Your task to perform on an android device: Open the map Image 0: 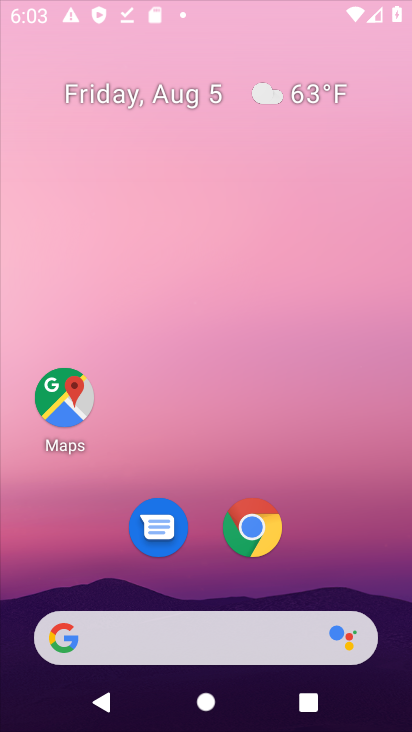
Step 0: click (247, 34)
Your task to perform on an android device: Open the map Image 1: 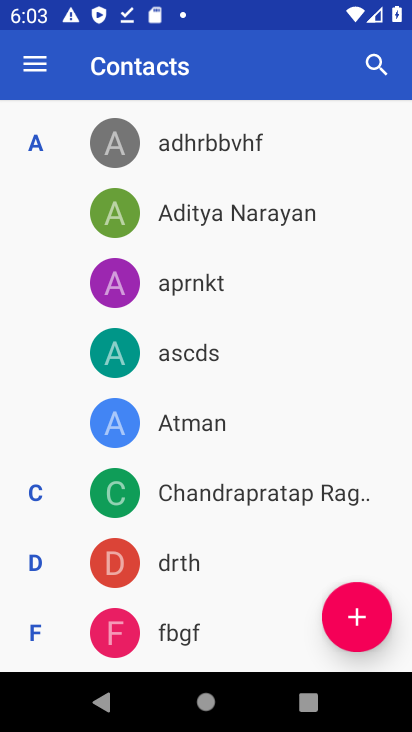
Step 1: drag from (198, 581) to (299, 155)
Your task to perform on an android device: Open the map Image 2: 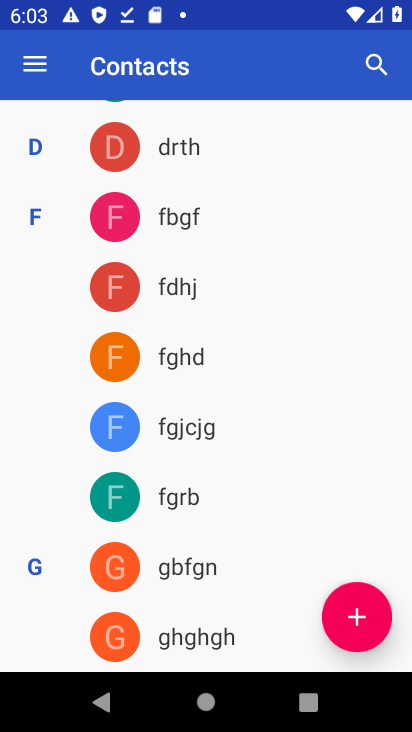
Step 2: press home button
Your task to perform on an android device: Open the map Image 3: 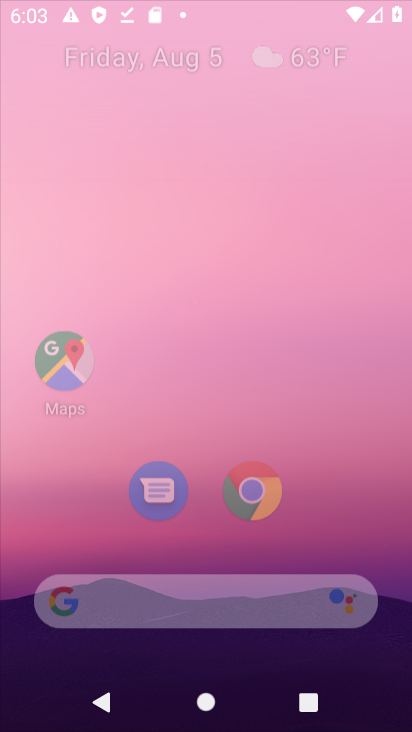
Step 3: drag from (203, 612) to (336, 119)
Your task to perform on an android device: Open the map Image 4: 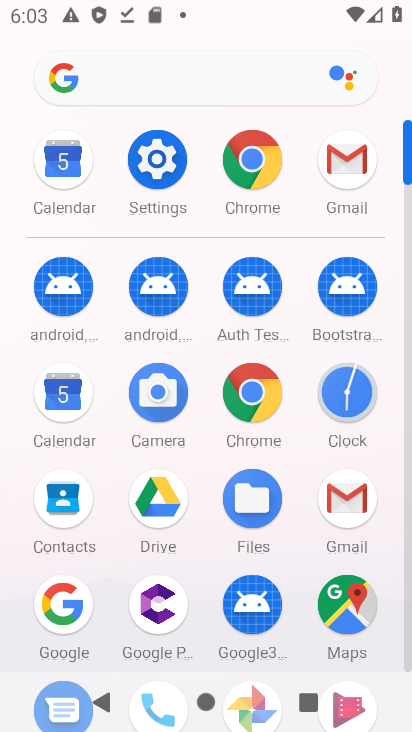
Step 4: click (340, 591)
Your task to perform on an android device: Open the map Image 5: 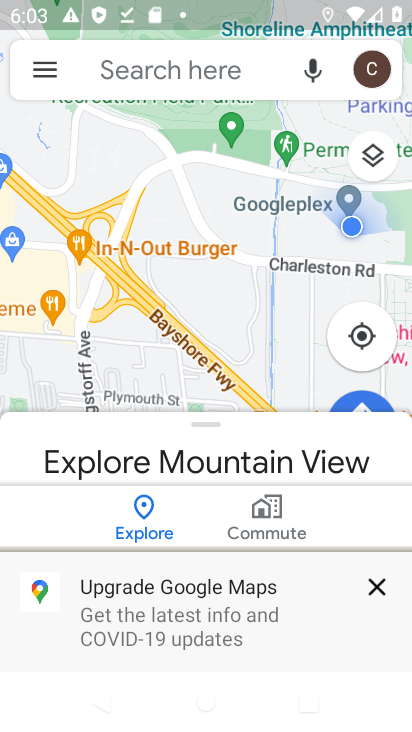
Step 5: task complete